Your task to perform on an android device: empty trash in the gmail app Image 0: 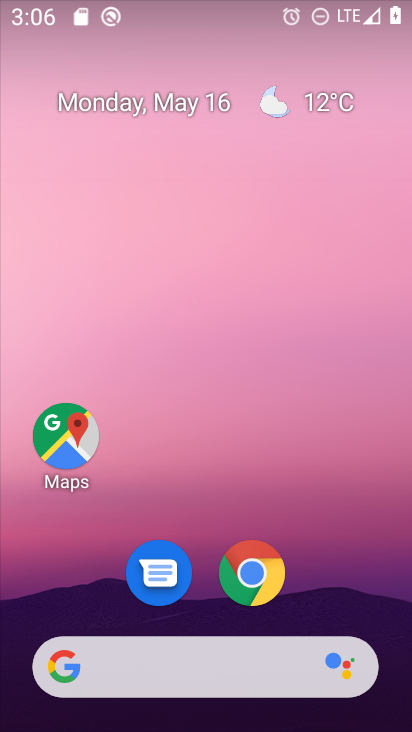
Step 0: drag from (203, 665) to (187, 149)
Your task to perform on an android device: empty trash in the gmail app Image 1: 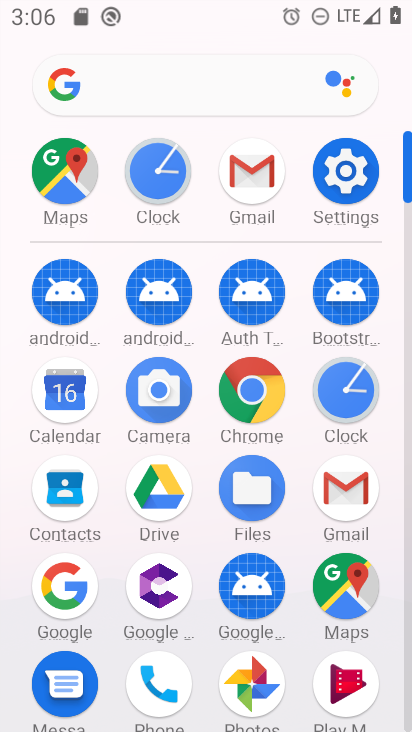
Step 1: click (240, 170)
Your task to perform on an android device: empty trash in the gmail app Image 2: 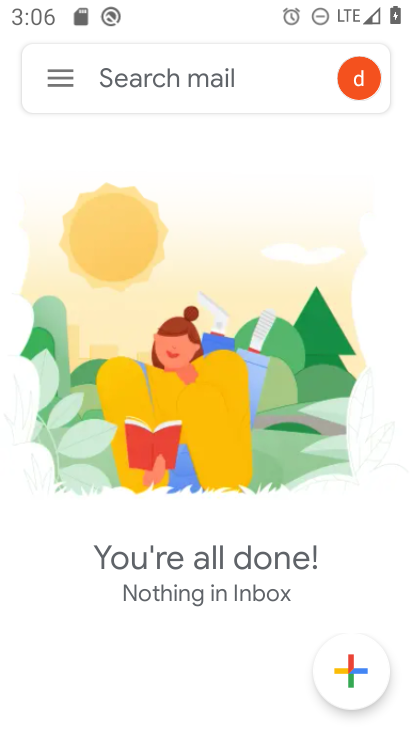
Step 2: click (48, 77)
Your task to perform on an android device: empty trash in the gmail app Image 3: 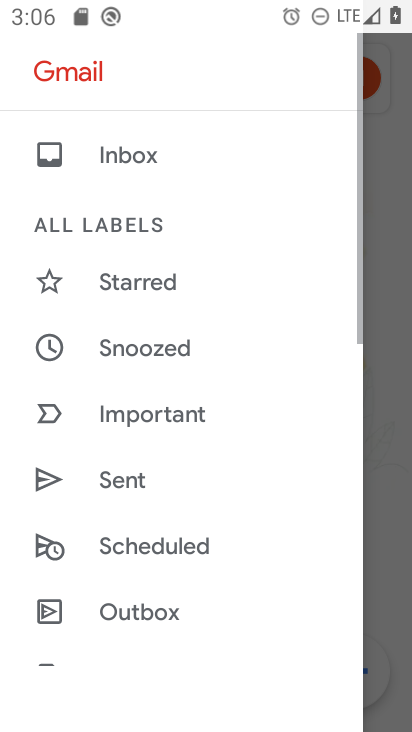
Step 3: drag from (134, 559) to (111, 214)
Your task to perform on an android device: empty trash in the gmail app Image 4: 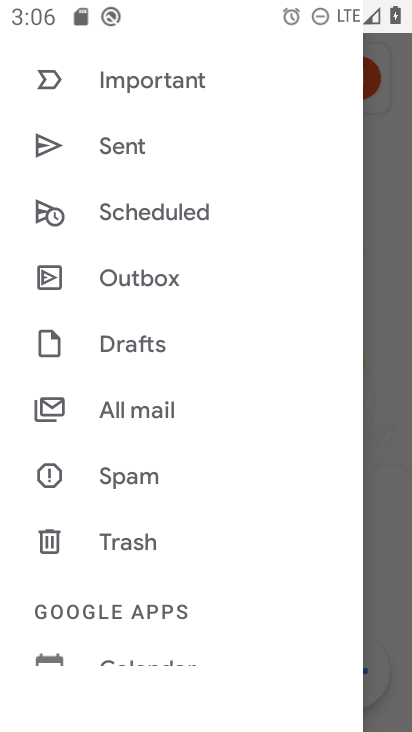
Step 4: click (108, 548)
Your task to perform on an android device: empty trash in the gmail app Image 5: 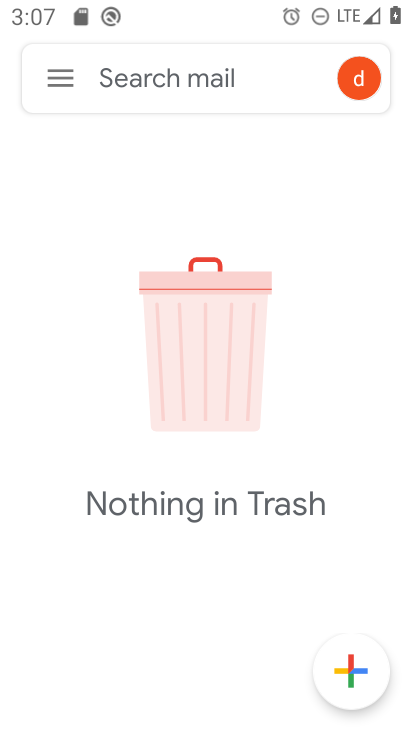
Step 5: task complete